Your task to perform on an android device: Go to Google Image 0: 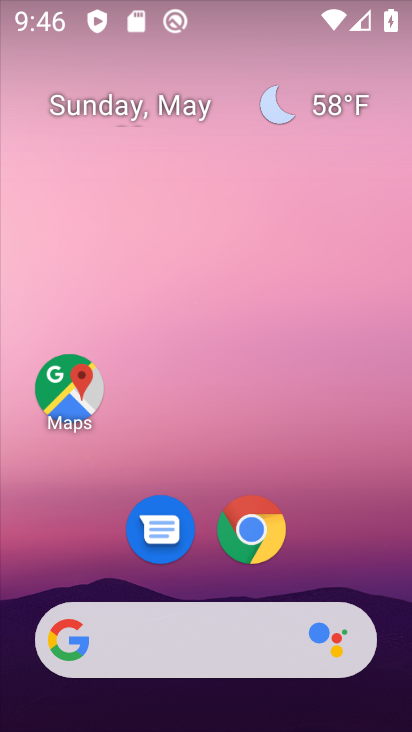
Step 0: click (145, 642)
Your task to perform on an android device: Go to Google Image 1: 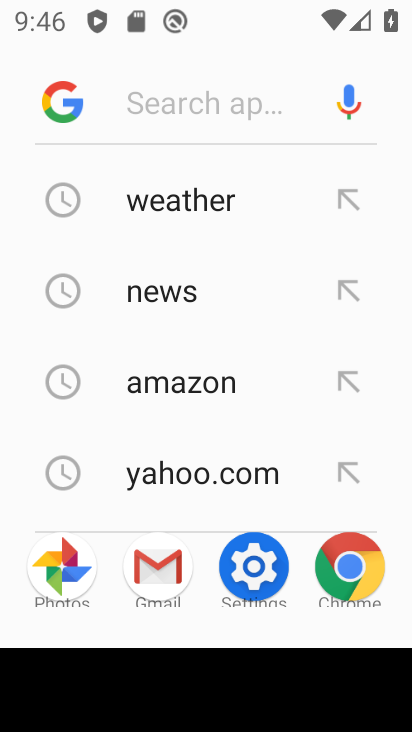
Step 1: click (68, 105)
Your task to perform on an android device: Go to Google Image 2: 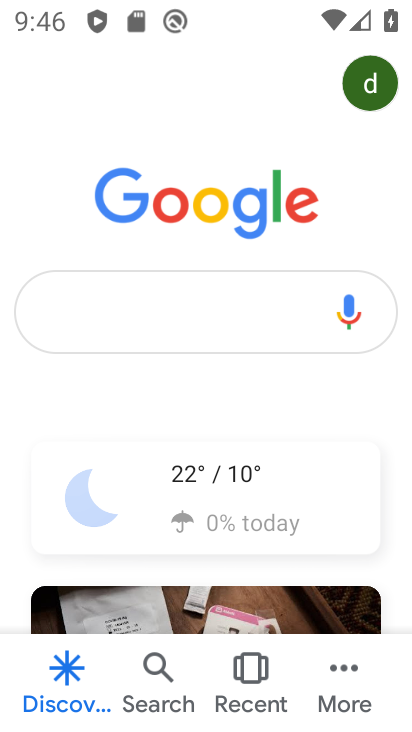
Step 2: task complete